Your task to perform on an android device: toggle wifi Image 0: 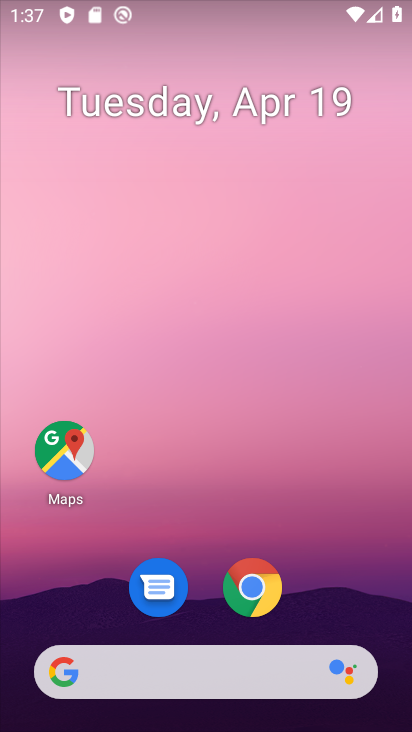
Step 0: drag from (320, 602) to (172, 32)
Your task to perform on an android device: toggle wifi Image 1: 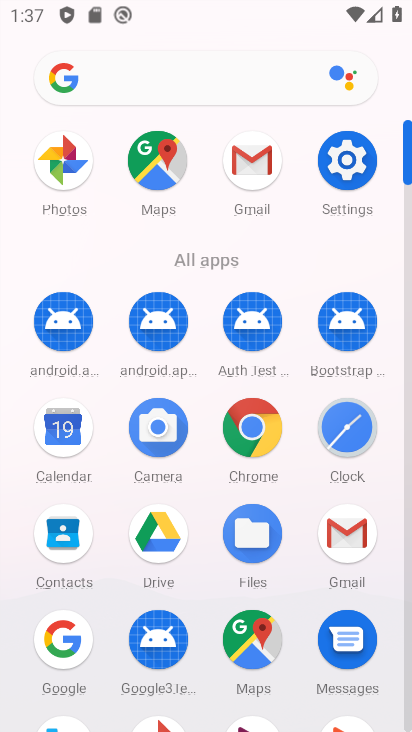
Step 1: click (348, 159)
Your task to perform on an android device: toggle wifi Image 2: 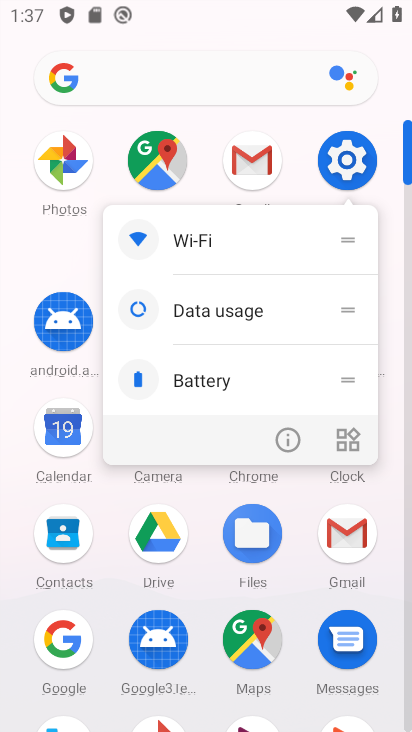
Step 2: click (349, 161)
Your task to perform on an android device: toggle wifi Image 3: 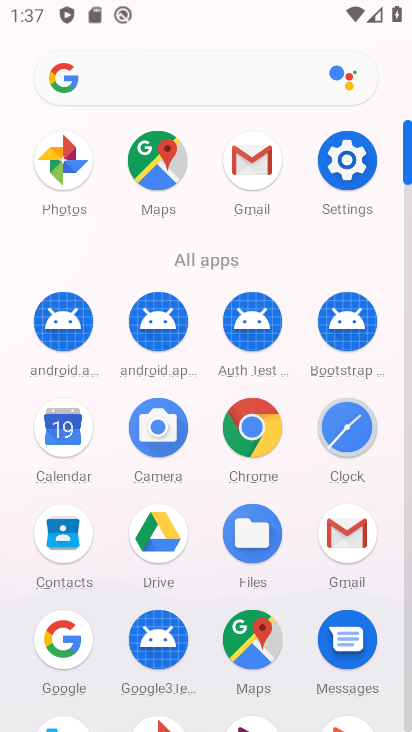
Step 3: click (352, 171)
Your task to perform on an android device: toggle wifi Image 4: 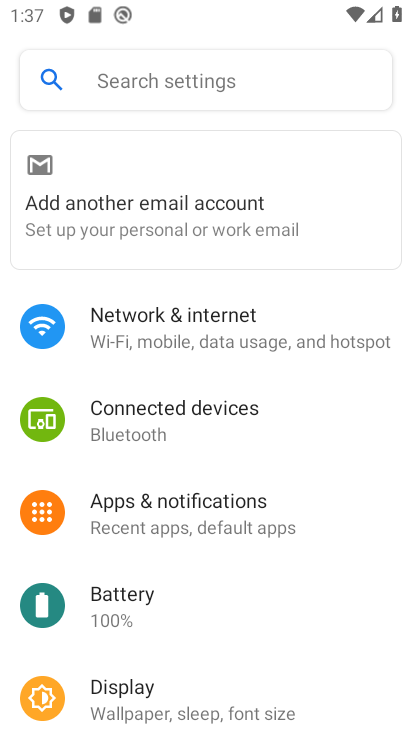
Step 4: click (355, 159)
Your task to perform on an android device: toggle wifi Image 5: 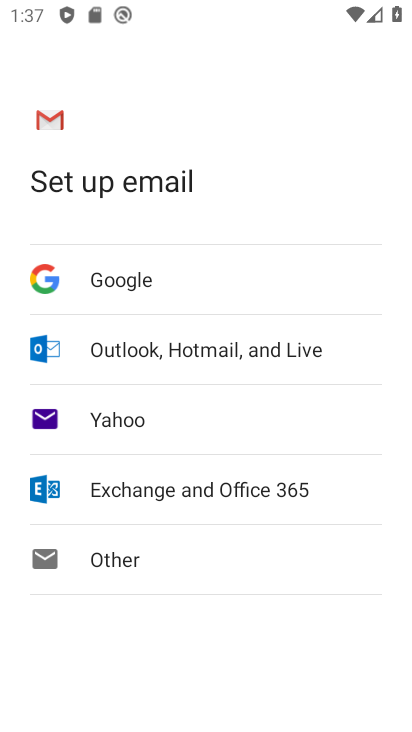
Step 5: click (207, 316)
Your task to perform on an android device: toggle wifi Image 6: 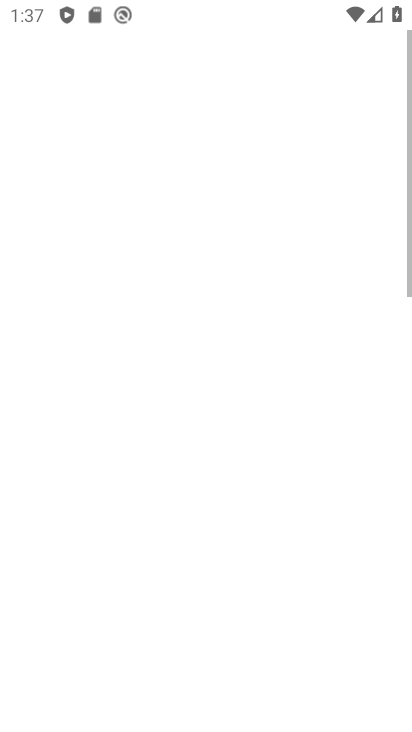
Step 6: press back button
Your task to perform on an android device: toggle wifi Image 7: 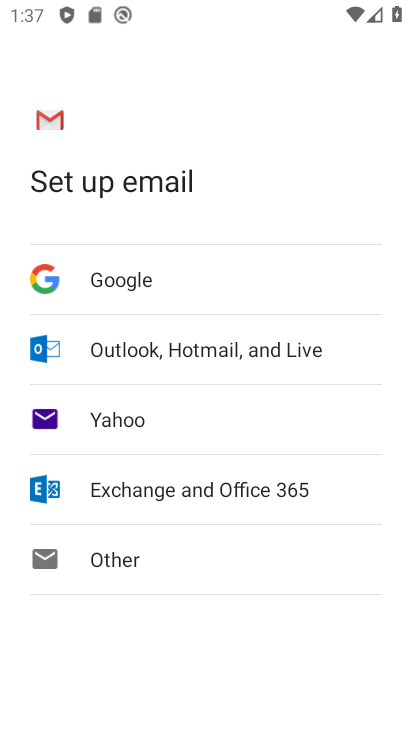
Step 7: press back button
Your task to perform on an android device: toggle wifi Image 8: 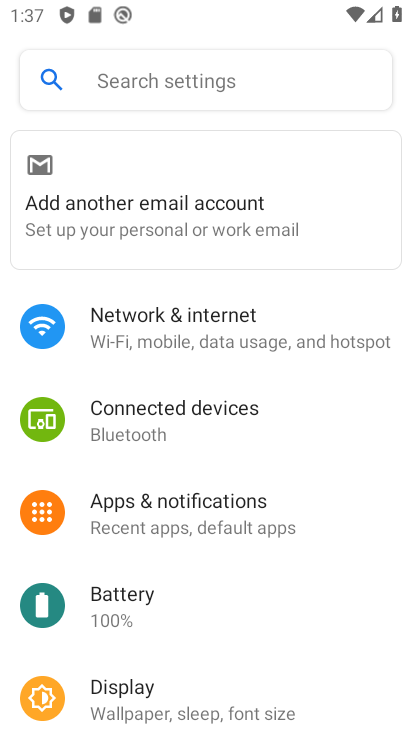
Step 8: click (223, 196)
Your task to perform on an android device: toggle wifi Image 9: 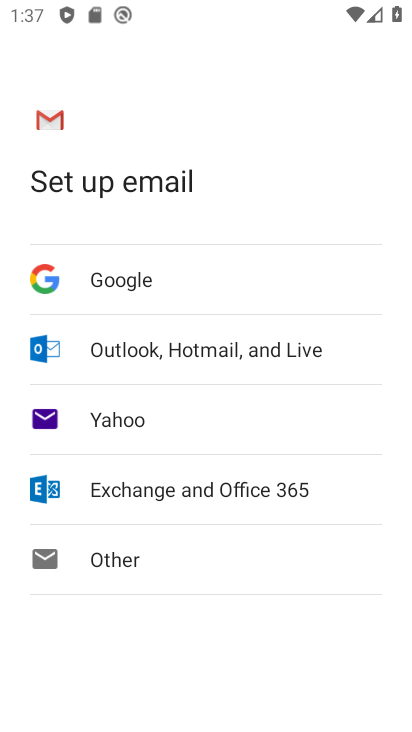
Step 9: press back button
Your task to perform on an android device: toggle wifi Image 10: 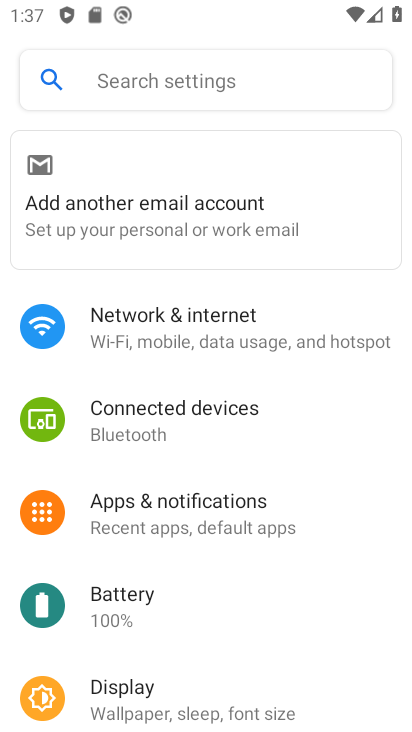
Step 10: click (182, 322)
Your task to perform on an android device: toggle wifi Image 11: 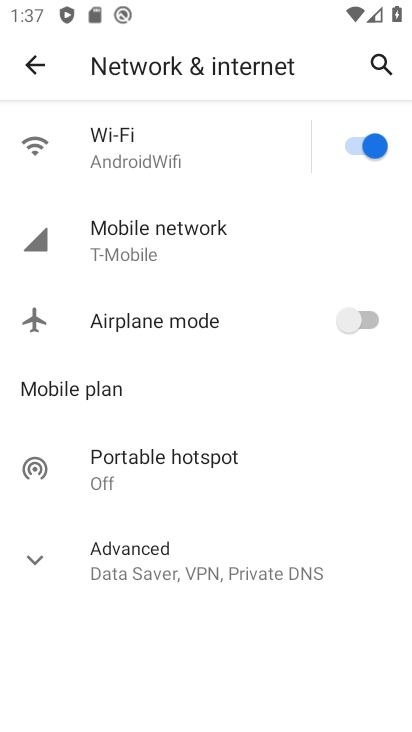
Step 11: click (376, 143)
Your task to perform on an android device: toggle wifi Image 12: 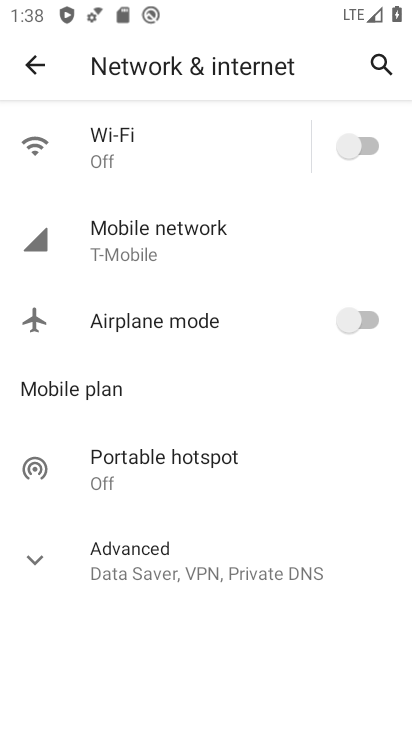
Step 12: task complete